Your task to perform on an android device: remove spam from my inbox in the gmail app Image 0: 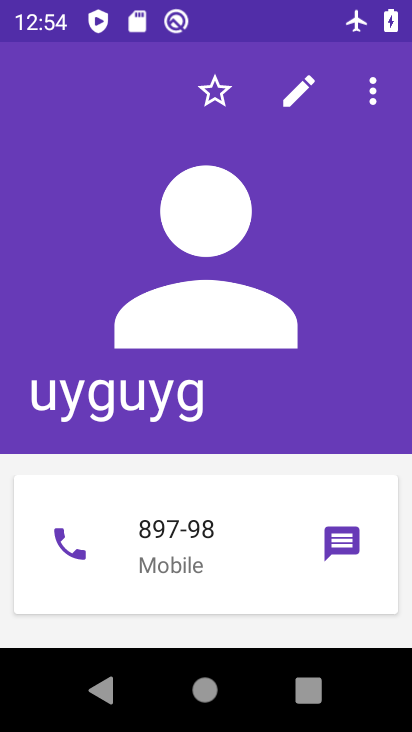
Step 0: press home button
Your task to perform on an android device: remove spam from my inbox in the gmail app Image 1: 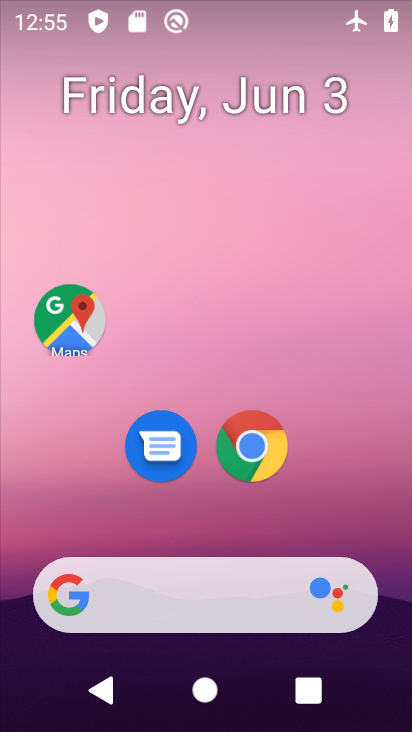
Step 1: drag from (275, 674) to (288, 7)
Your task to perform on an android device: remove spam from my inbox in the gmail app Image 2: 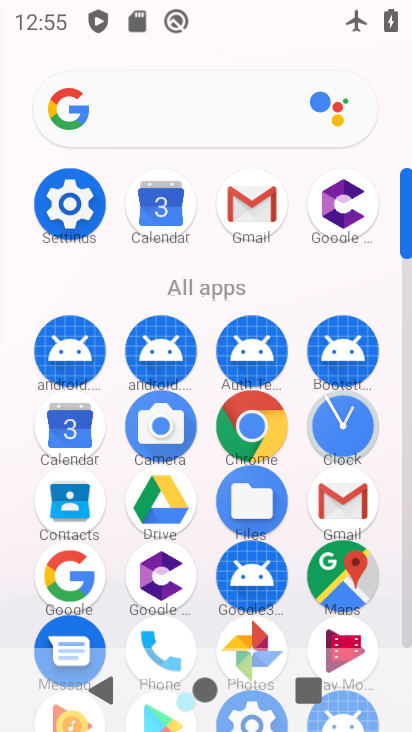
Step 2: click (264, 212)
Your task to perform on an android device: remove spam from my inbox in the gmail app Image 3: 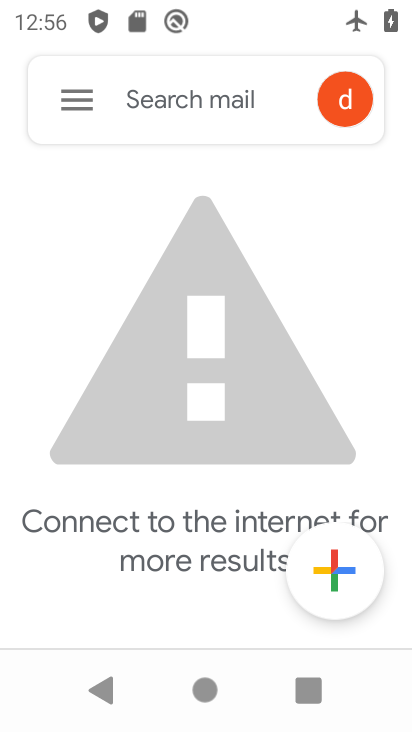
Step 3: task complete